Your task to perform on an android device: allow cookies in the chrome app Image 0: 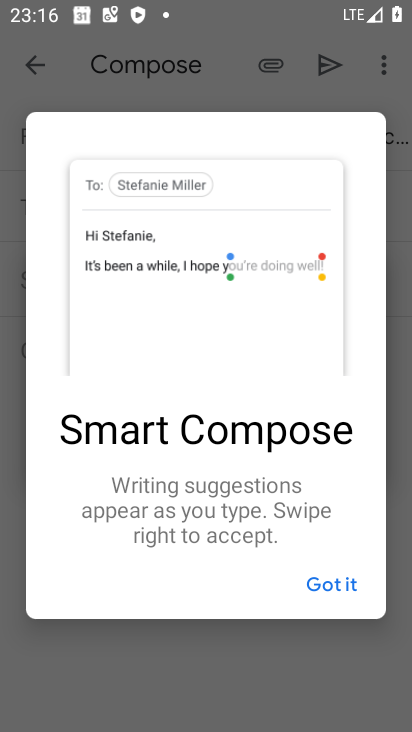
Step 0: press home button
Your task to perform on an android device: allow cookies in the chrome app Image 1: 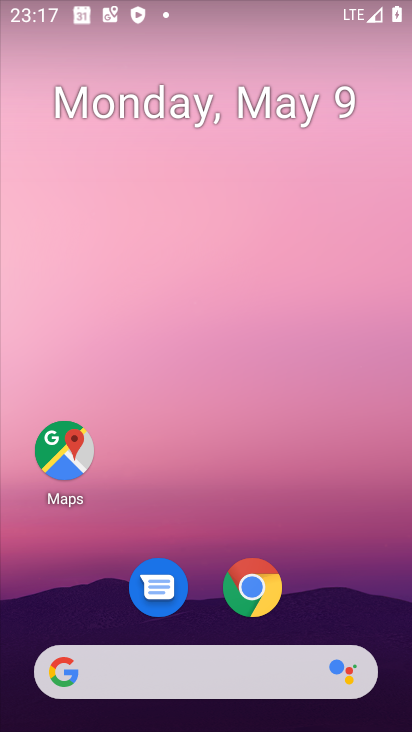
Step 1: click (263, 578)
Your task to perform on an android device: allow cookies in the chrome app Image 2: 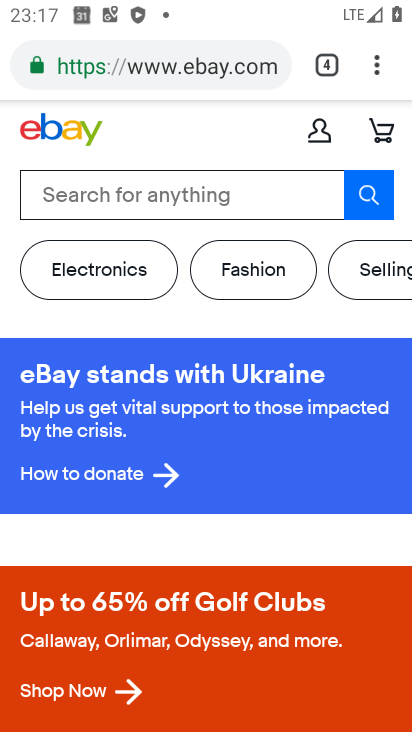
Step 2: click (388, 58)
Your task to perform on an android device: allow cookies in the chrome app Image 3: 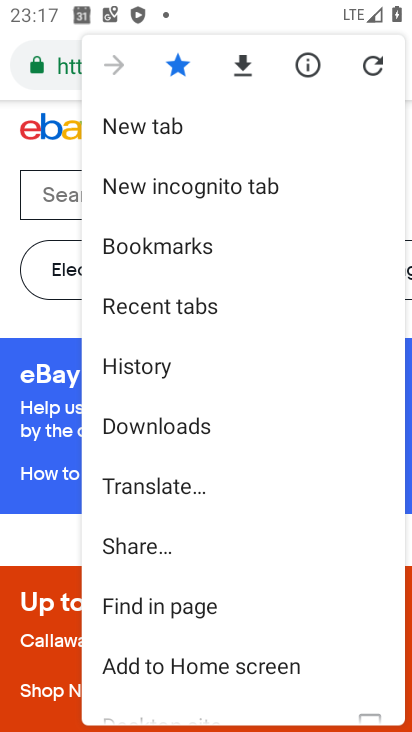
Step 3: drag from (176, 659) to (189, 138)
Your task to perform on an android device: allow cookies in the chrome app Image 4: 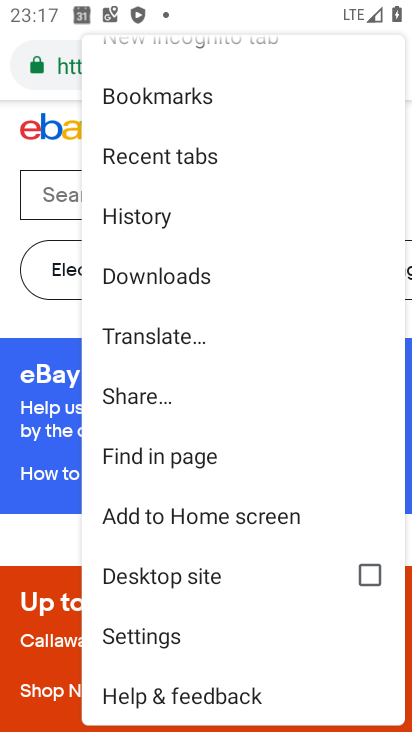
Step 4: click (200, 621)
Your task to perform on an android device: allow cookies in the chrome app Image 5: 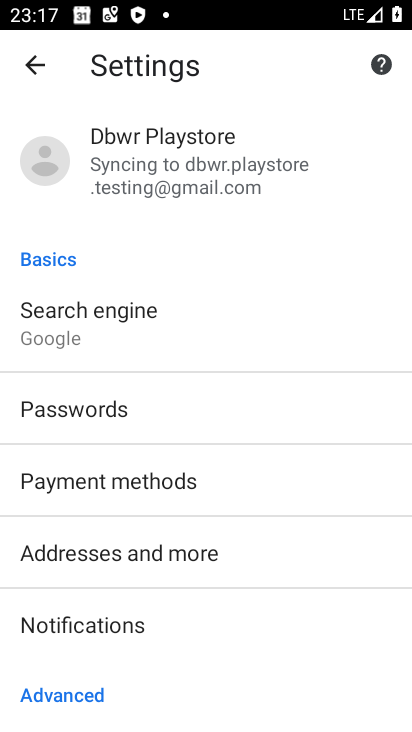
Step 5: drag from (200, 621) to (201, 322)
Your task to perform on an android device: allow cookies in the chrome app Image 6: 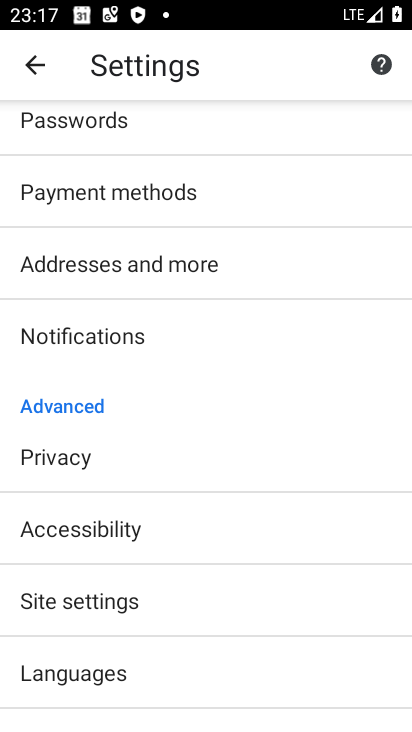
Step 6: drag from (124, 658) to (123, 338)
Your task to perform on an android device: allow cookies in the chrome app Image 7: 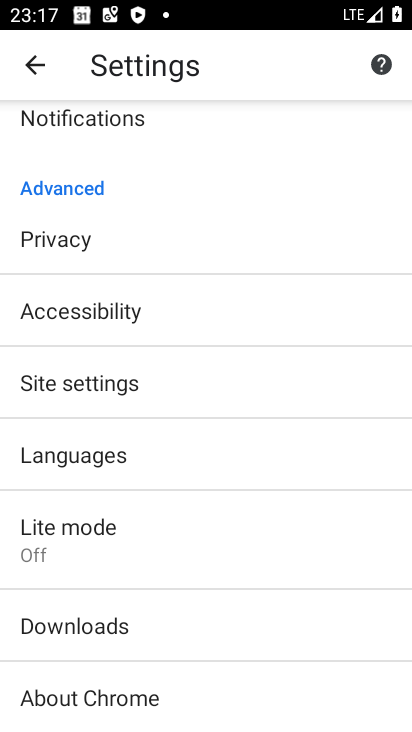
Step 7: click (168, 396)
Your task to perform on an android device: allow cookies in the chrome app Image 8: 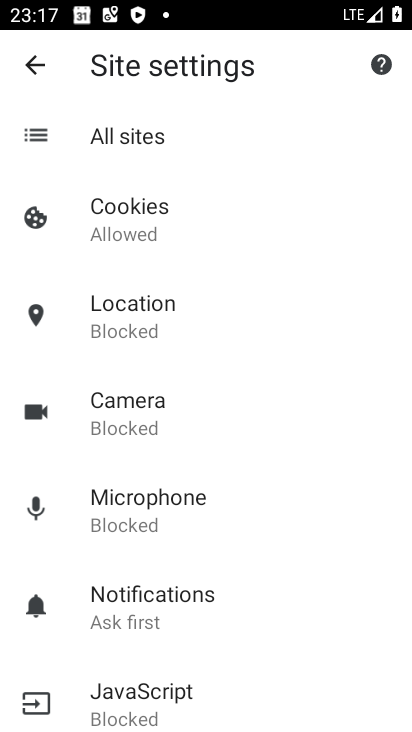
Step 8: click (196, 244)
Your task to perform on an android device: allow cookies in the chrome app Image 9: 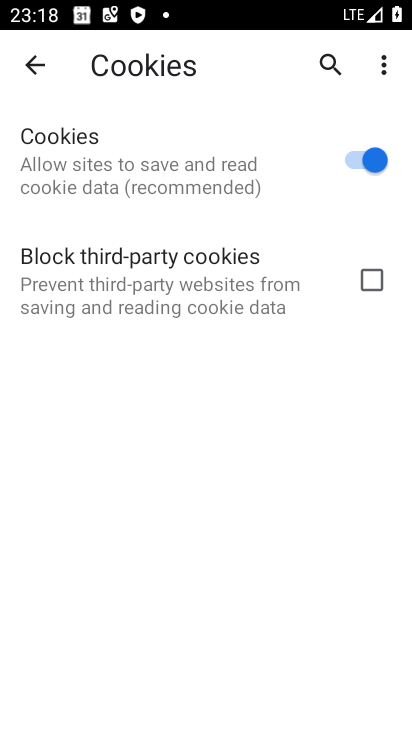
Step 9: task complete